Your task to perform on an android device: Do I have any events today? Image 0: 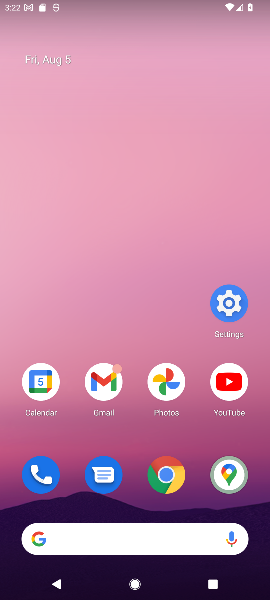
Step 0: click (40, 382)
Your task to perform on an android device: Do I have any events today? Image 1: 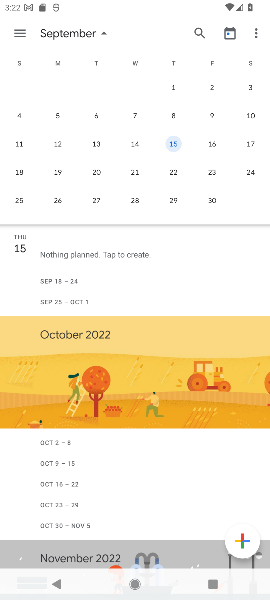
Step 1: drag from (14, 130) to (252, 154)
Your task to perform on an android device: Do I have any events today? Image 2: 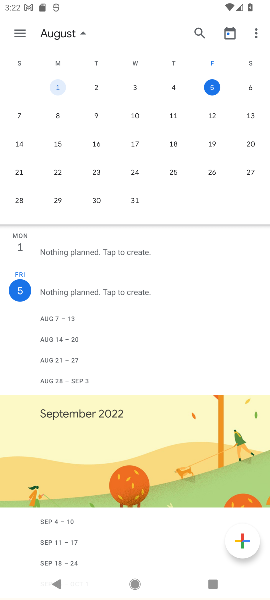
Step 2: click (210, 85)
Your task to perform on an android device: Do I have any events today? Image 3: 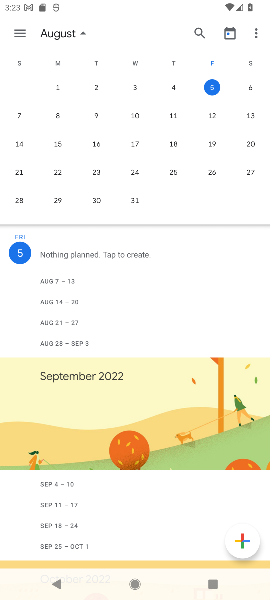
Step 3: click (16, 25)
Your task to perform on an android device: Do I have any events today? Image 4: 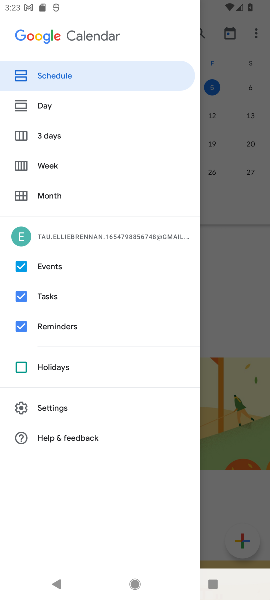
Step 4: click (37, 74)
Your task to perform on an android device: Do I have any events today? Image 5: 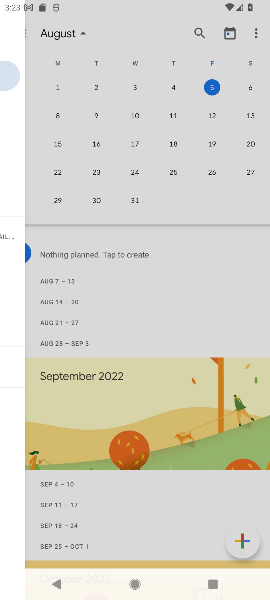
Step 5: click (33, 106)
Your task to perform on an android device: Do I have any events today? Image 6: 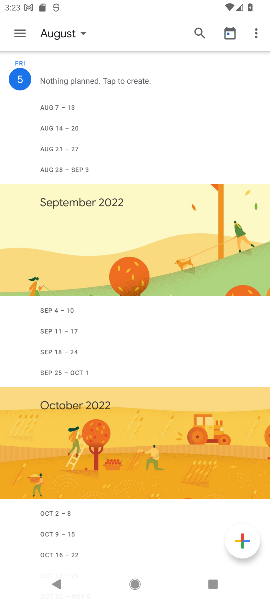
Step 6: click (19, 38)
Your task to perform on an android device: Do I have any events today? Image 7: 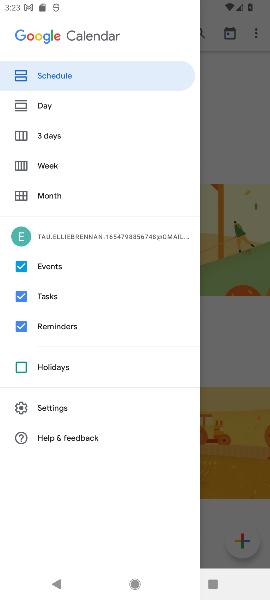
Step 7: click (32, 103)
Your task to perform on an android device: Do I have any events today? Image 8: 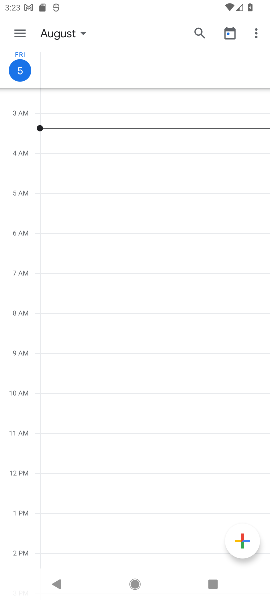
Step 8: click (27, 31)
Your task to perform on an android device: Do I have any events today? Image 9: 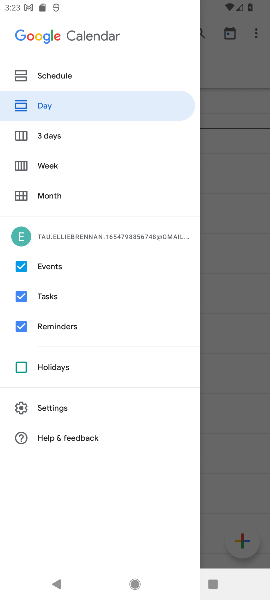
Step 9: click (55, 74)
Your task to perform on an android device: Do I have any events today? Image 10: 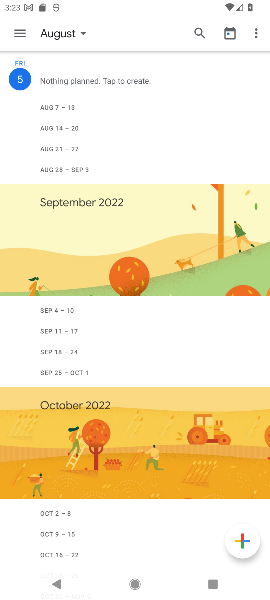
Step 10: task complete